Your task to perform on an android device: Open calendar and show me the first week of next month Image 0: 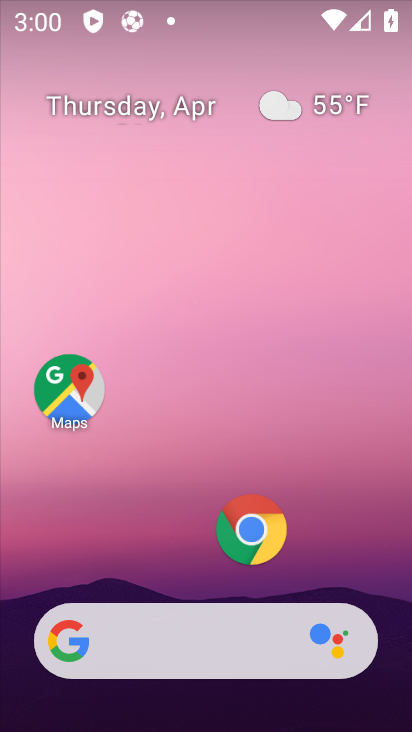
Step 0: drag from (147, 605) to (232, 93)
Your task to perform on an android device: Open calendar and show me the first week of next month Image 1: 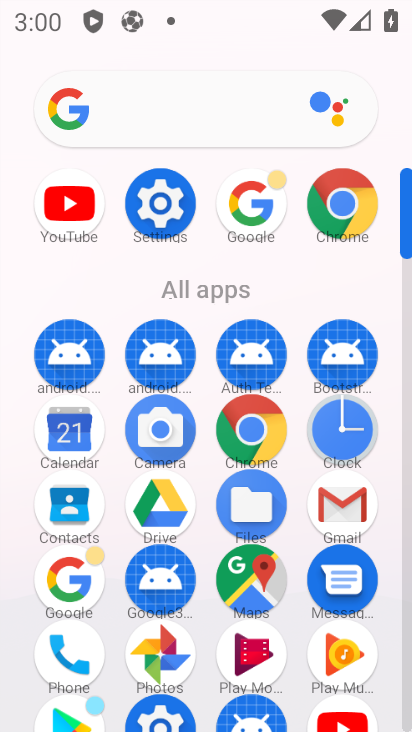
Step 1: click (71, 433)
Your task to perform on an android device: Open calendar and show me the first week of next month Image 2: 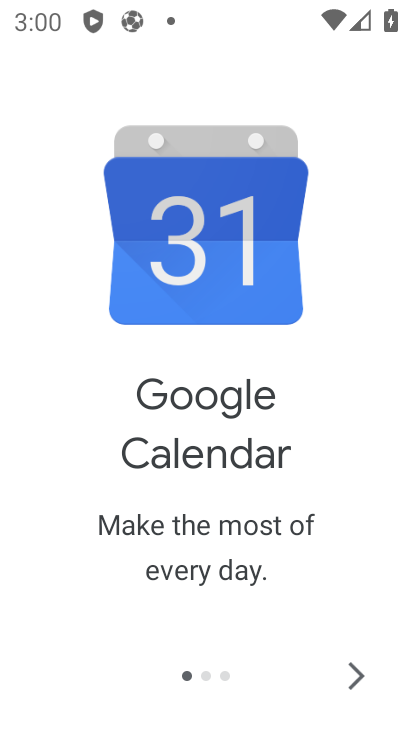
Step 2: click (359, 663)
Your task to perform on an android device: Open calendar and show me the first week of next month Image 3: 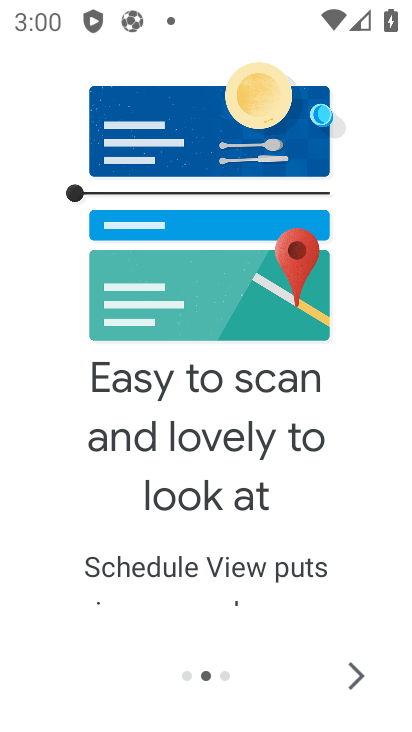
Step 3: click (362, 661)
Your task to perform on an android device: Open calendar and show me the first week of next month Image 4: 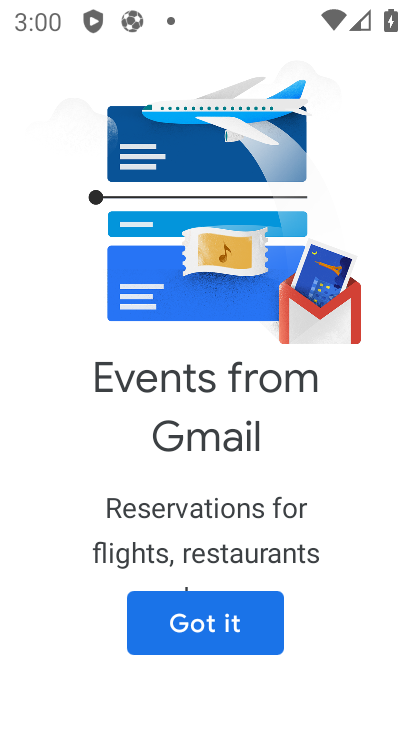
Step 4: click (259, 620)
Your task to perform on an android device: Open calendar and show me the first week of next month Image 5: 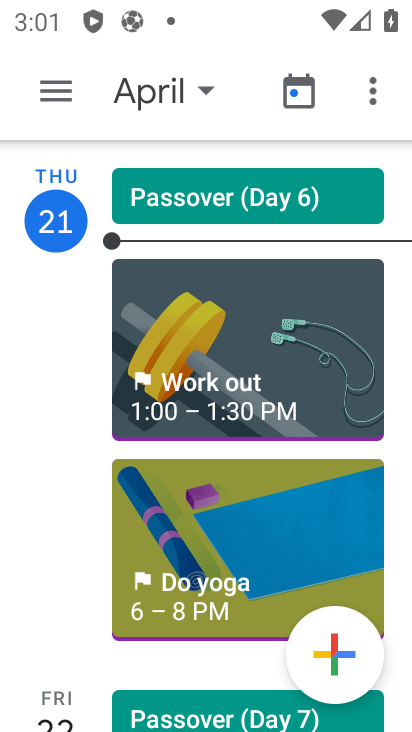
Step 5: click (197, 88)
Your task to perform on an android device: Open calendar and show me the first week of next month Image 6: 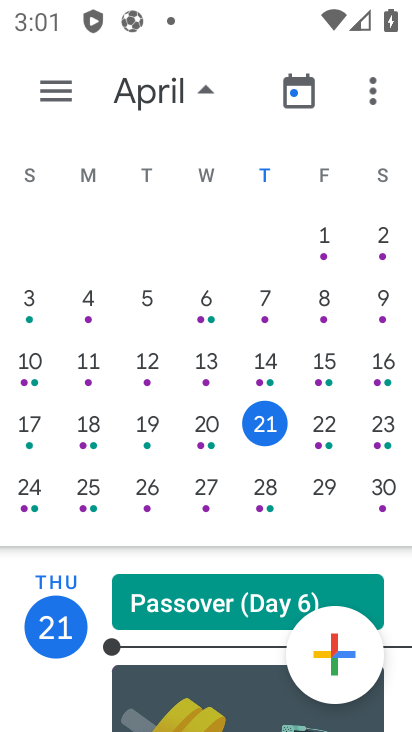
Step 6: drag from (390, 327) to (34, 303)
Your task to perform on an android device: Open calendar and show me the first week of next month Image 7: 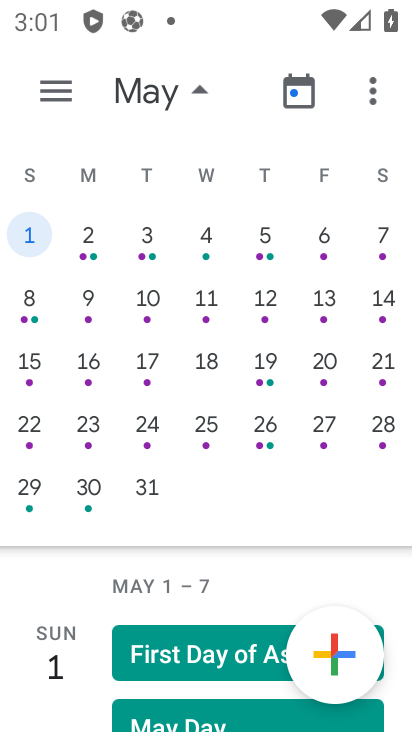
Step 7: click (148, 240)
Your task to perform on an android device: Open calendar and show me the first week of next month Image 8: 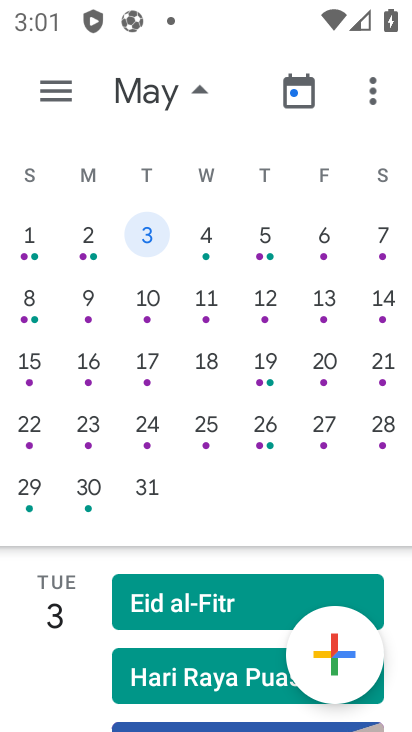
Step 8: click (42, 96)
Your task to perform on an android device: Open calendar and show me the first week of next month Image 9: 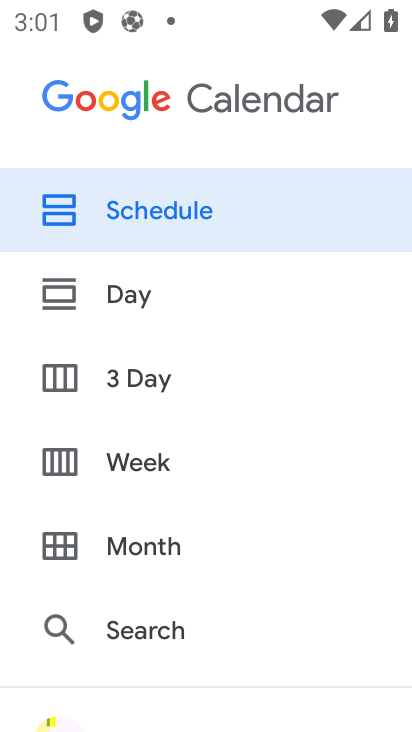
Step 9: click (150, 449)
Your task to perform on an android device: Open calendar and show me the first week of next month Image 10: 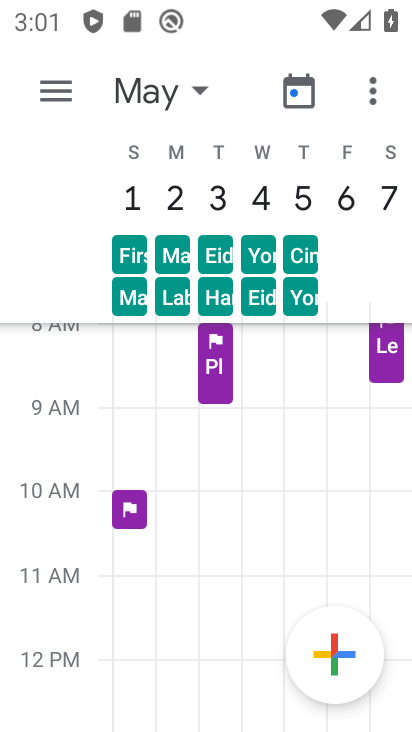
Step 10: task complete